Your task to perform on an android device: Turn on the flashlight Image 0: 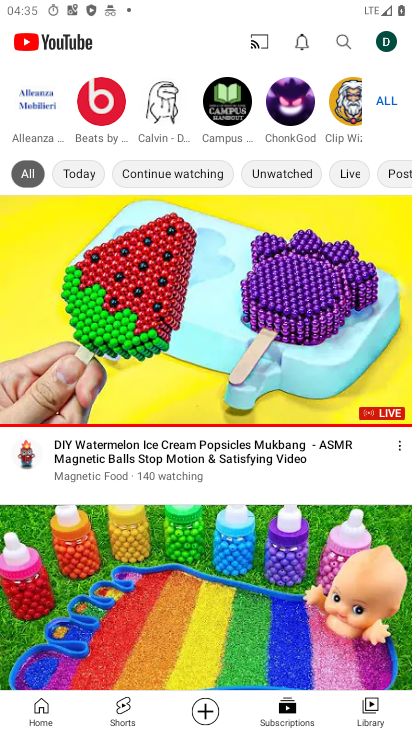
Step 0: press home button
Your task to perform on an android device: Turn on the flashlight Image 1: 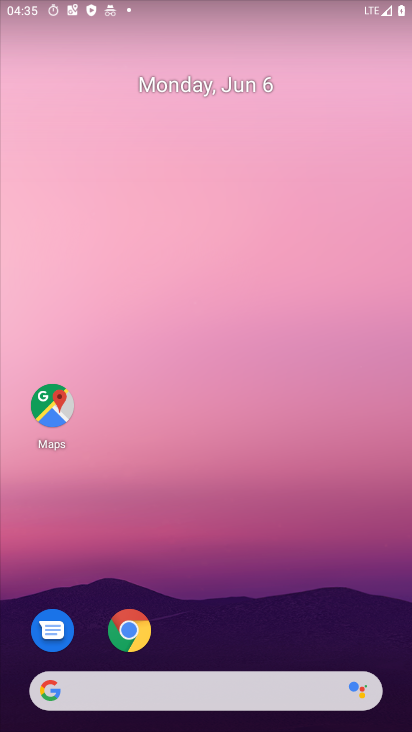
Step 1: task complete